Your task to perform on an android device: Open the map Image 0: 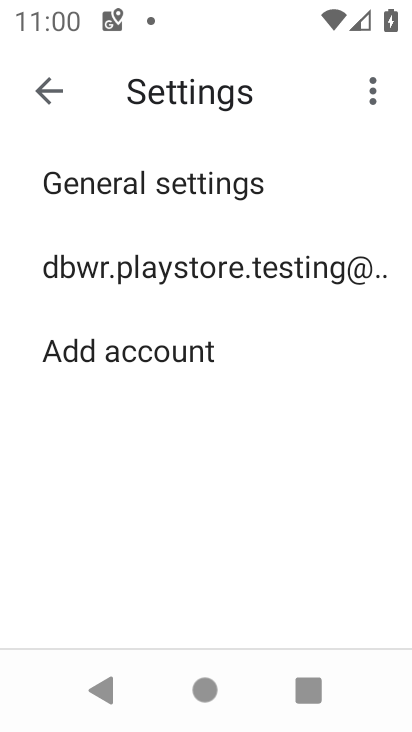
Step 0: press home button
Your task to perform on an android device: Open the map Image 1: 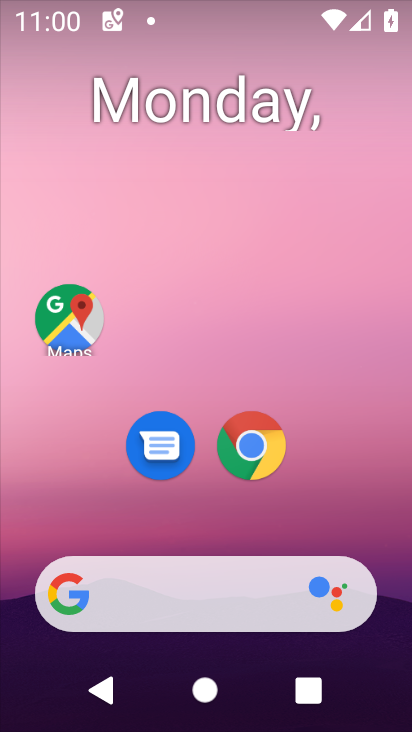
Step 1: click (73, 292)
Your task to perform on an android device: Open the map Image 2: 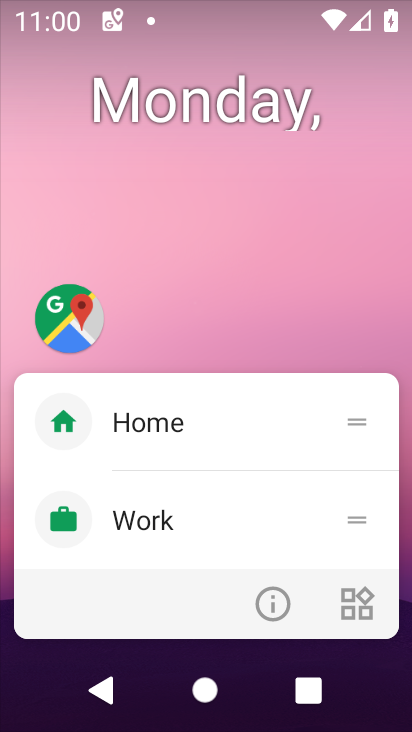
Step 2: click (80, 330)
Your task to perform on an android device: Open the map Image 3: 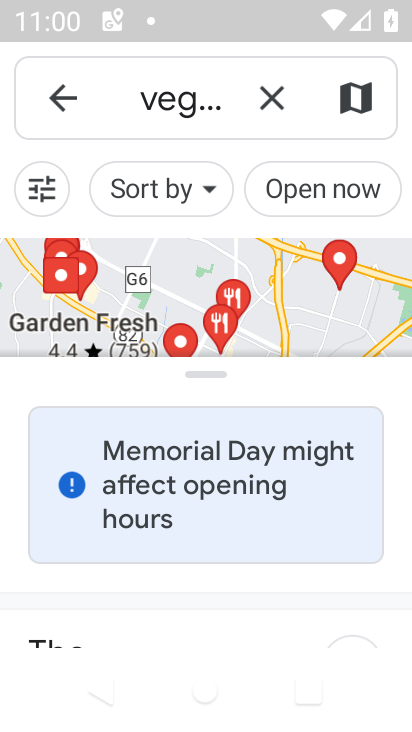
Step 3: task complete